Your task to perform on an android device: toggle javascript in the chrome app Image 0: 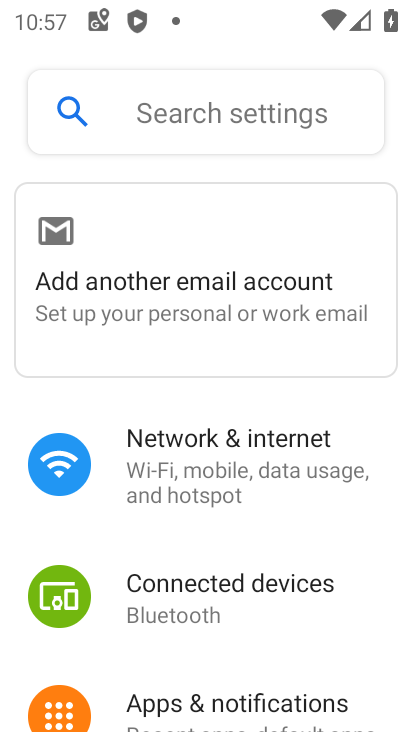
Step 0: drag from (290, 674) to (281, 431)
Your task to perform on an android device: toggle javascript in the chrome app Image 1: 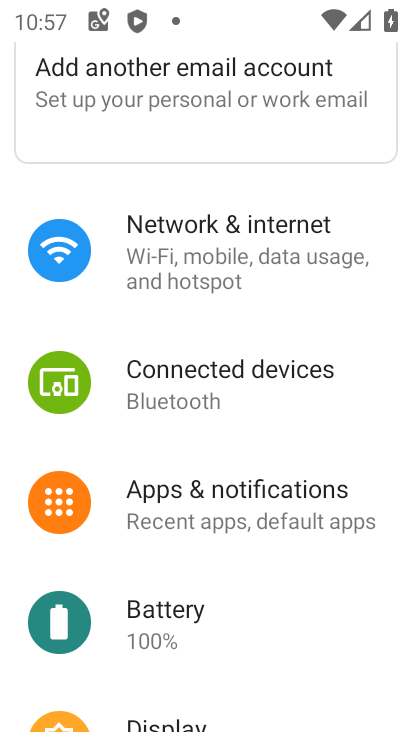
Step 1: press home button
Your task to perform on an android device: toggle javascript in the chrome app Image 2: 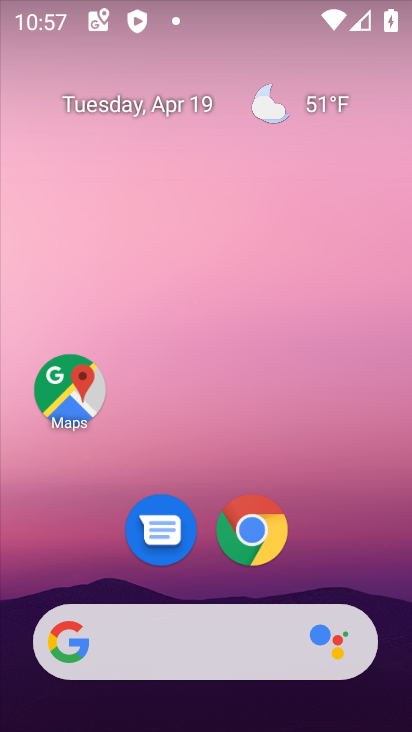
Step 2: click (254, 525)
Your task to perform on an android device: toggle javascript in the chrome app Image 3: 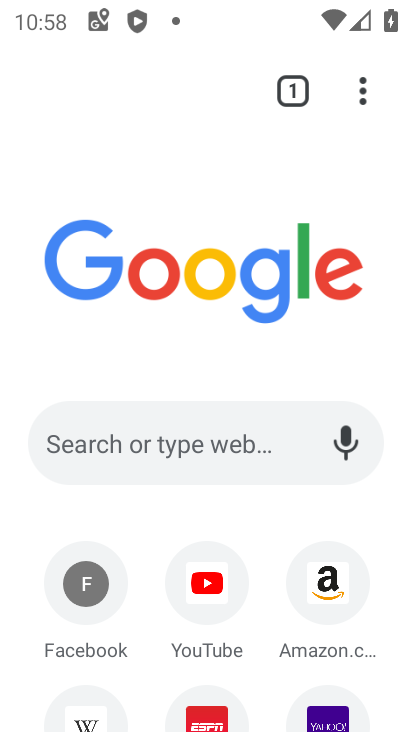
Step 3: click (363, 94)
Your task to perform on an android device: toggle javascript in the chrome app Image 4: 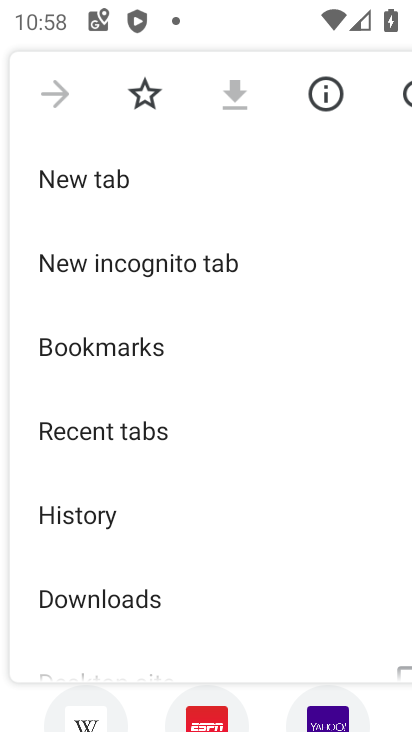
Step 4: drag from (227, 531) to (214, 141)
Your task to perform on an android device: toggle javascript in the chrome app Image 5: 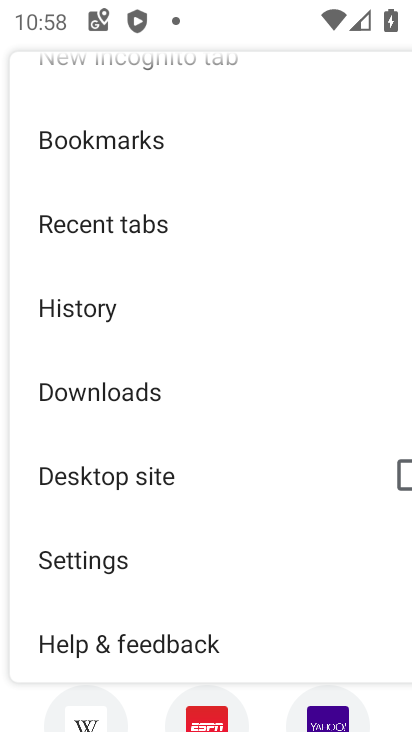
Step 5: click (139, 555)
Your task to perform on an android device: toggle javascript in the chrome app Image 6: 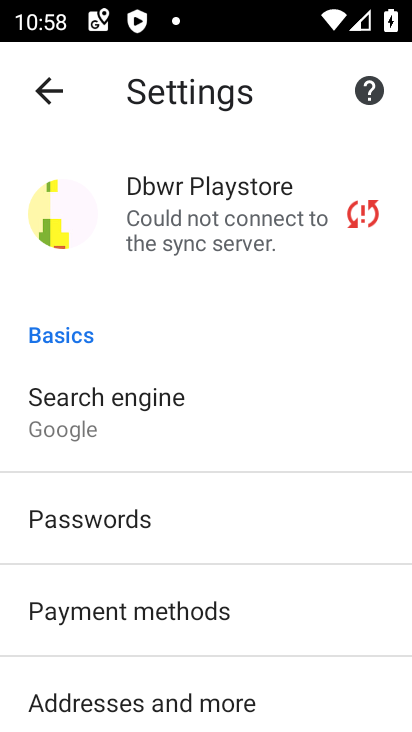
Step 6: drag from (219, 543) to (265, 204)
Your task to perform on an android device: toggle javascript in the chrome app Image 7: 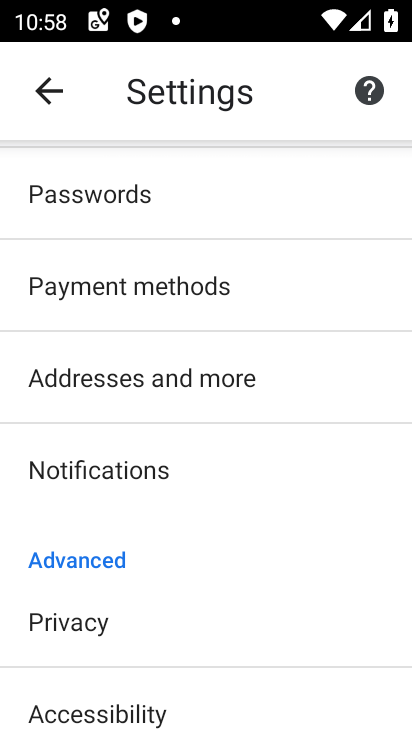
Step 7: drag from (231, 635) to (244, 247)
Your task to perform on an android device: toggle javascript in the chrome app Image 8: 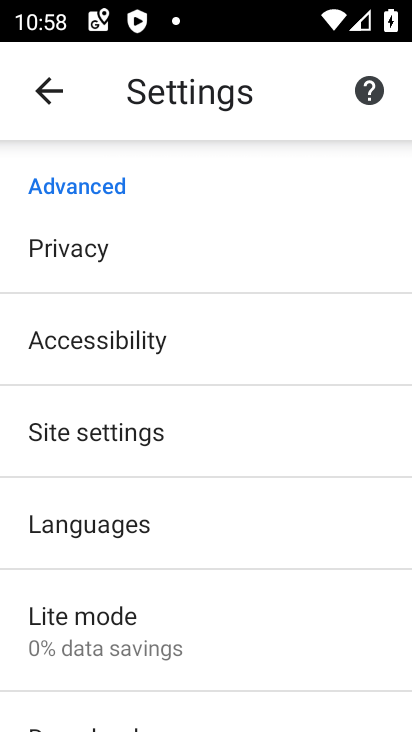
Step 8: click (126, 423)
Your task to perform on an android device: toggle javascript in the chrome app Image 9: 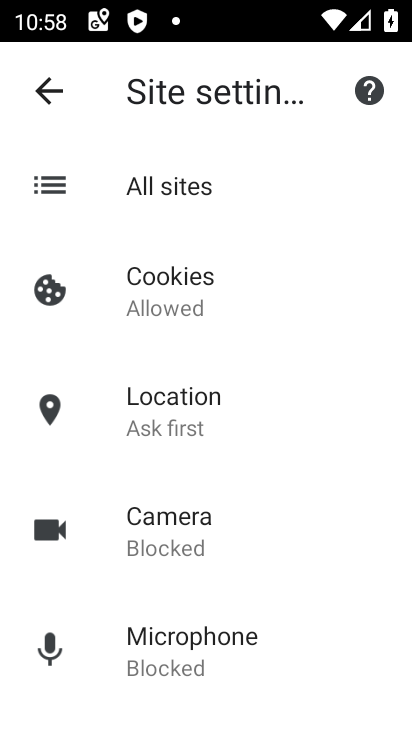
Step 9: drag from (303, 520) to (297, 245)
Your task to perform on an android device: toggle javascript in the chrome app Image 10: 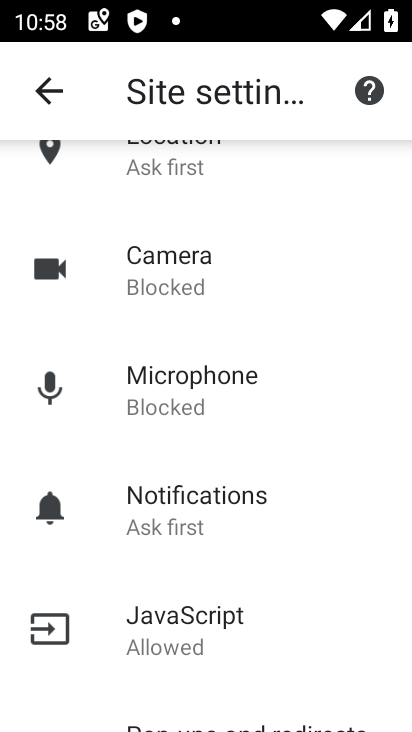
Step 10: click (197, 610)
Your task to perform on an android device: toggle javascript in the chrome app Image 11: 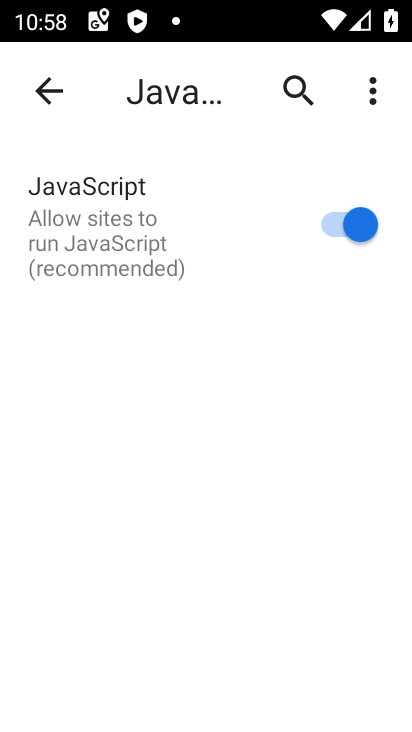
Step 11: click (345, 217)
Your task to perform on an android device: toggle javascript in the chrome app Image 12: 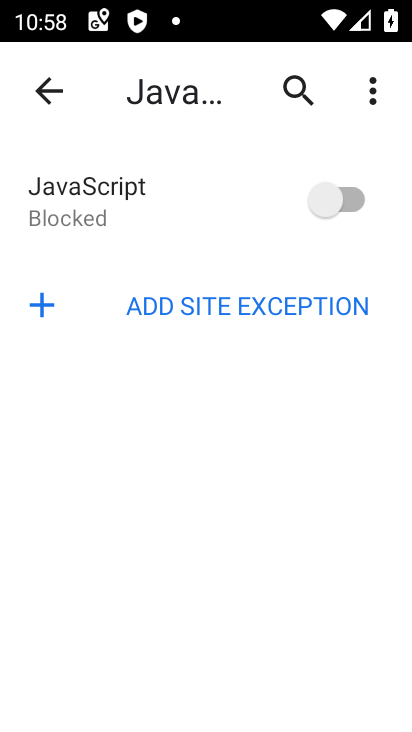
Step 12: task complete